Your task to perform on an android device: Find coffee shops on Maps Image 0: 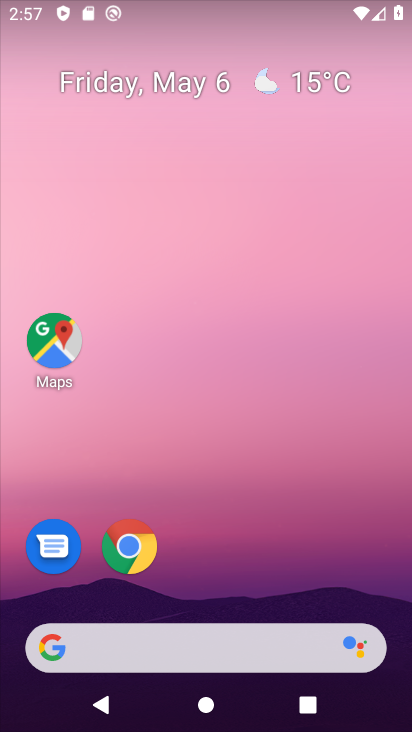
Step 0: click (56, 346)
Your task to perform on an android device: Find coffee shops on Maps Image 1: 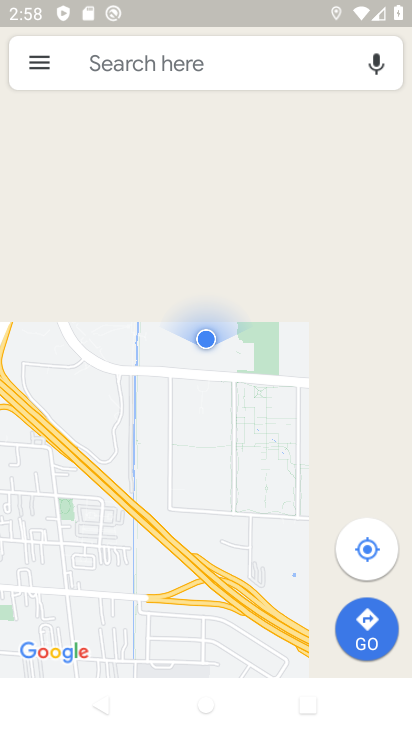
Step 1: click (190, 62)
Your task to perform on an android device: Find coffee shops on Maps Image 2: 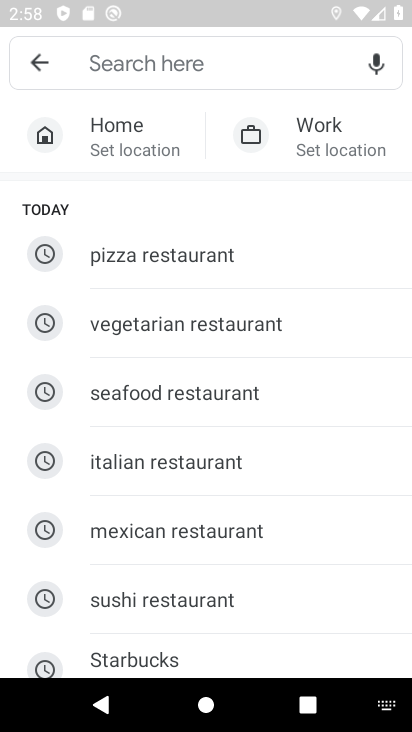
Step 2: drag from (155, 636) to (155, 314)
Your task to perform on an android device: Find coffee shops on Maps Image 3: 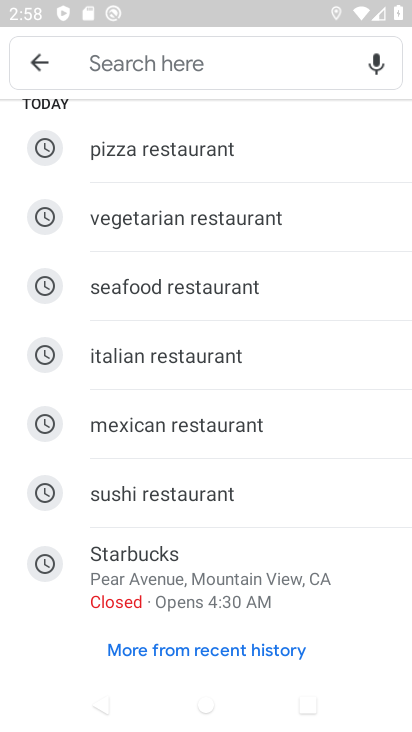
Step 3: drag from (228, 214) to (185, 661)
Your task to perform on an android device: Find coffee shops on Maps Image 4: 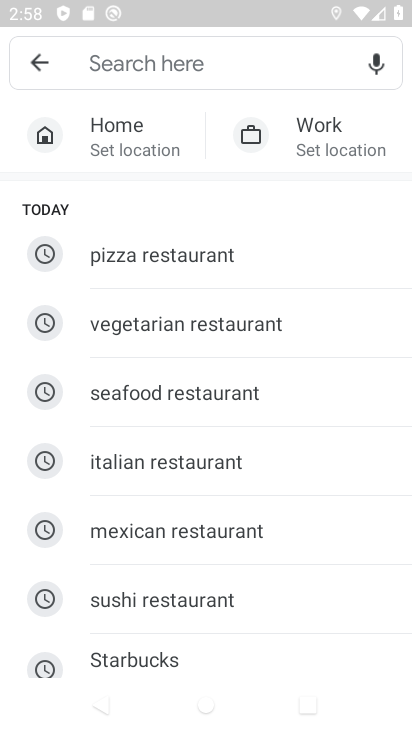
Step 4: type "coffee shopes"
Your task to perform on an android device: Find coffee shops on Maps Image 5: 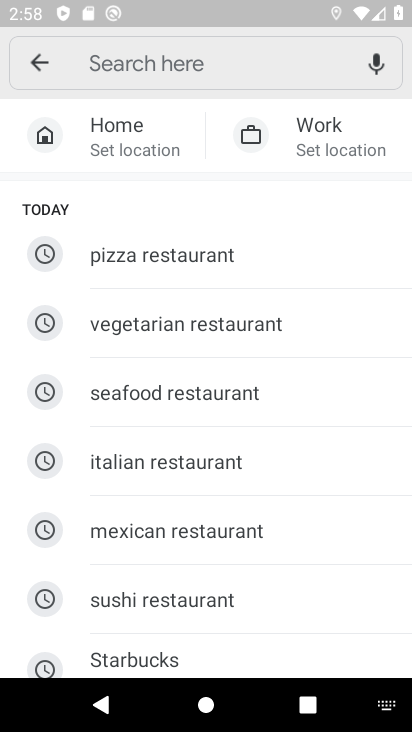
Step 5: click (115, 67)
Your task to perform on an android device: Find coffee shops on Maps Image 6: 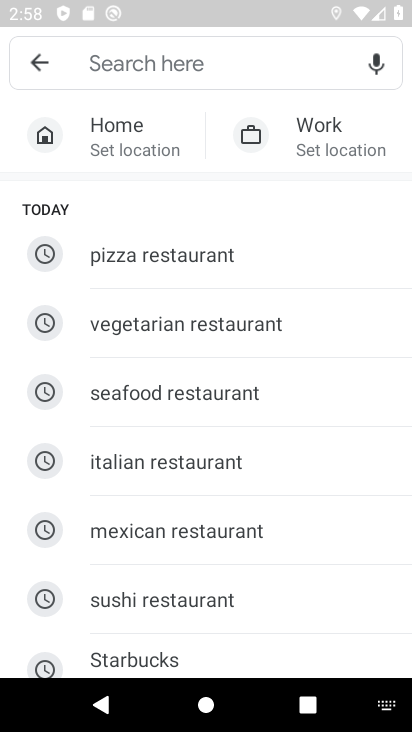
Step 6: type "coffee shopes"
Your task to perform on an android device: Find coffee shops on Maps Image 7: 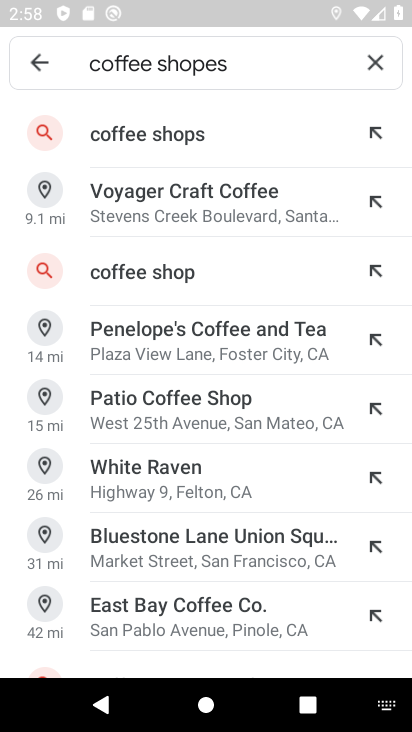
Step 7: click (165, 132)
Your task to perform on an android device: Find coffee shops on Maps Image 8: 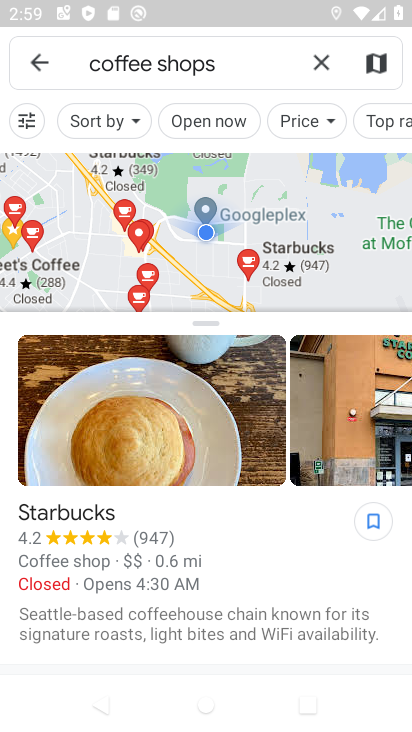
Step 8: task complete